Your task to perform on an android device: Go to Google maps Image 0: 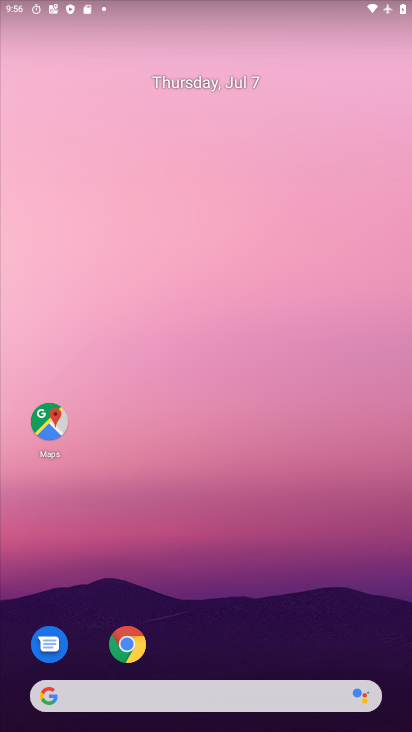
Step 0: click (47, 427)
Your task to perform on an android device: Go to Google maps Image 1: 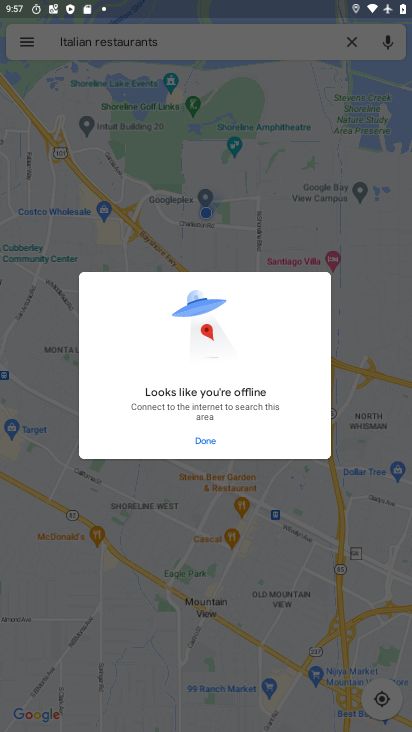
Step 1: task complete